Your task to perform on an android device: read, delete, or share a saved page in the chrome app Image 0: 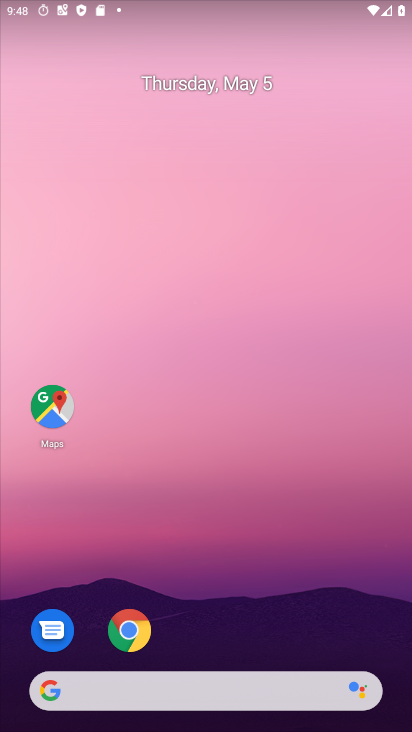
Step 0: click (136, 628)
Your task to perform on an android device: read, delete, or share a saved page in the chrome app Image 1: 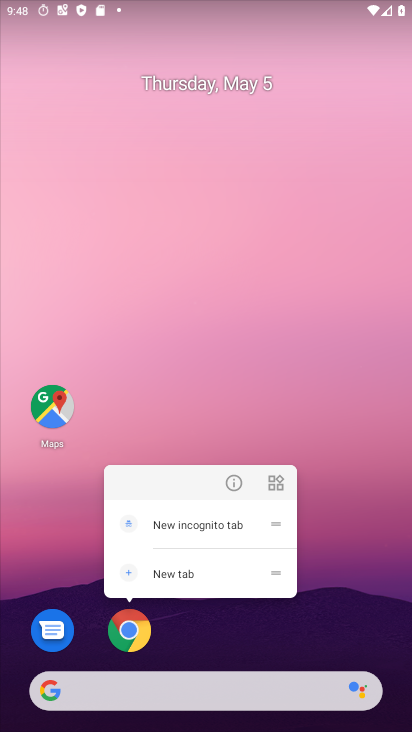
Step 1: click (303, 635)
Your task to perform on an android device: read, delete, or share a saved page in the chrome app Image 2: 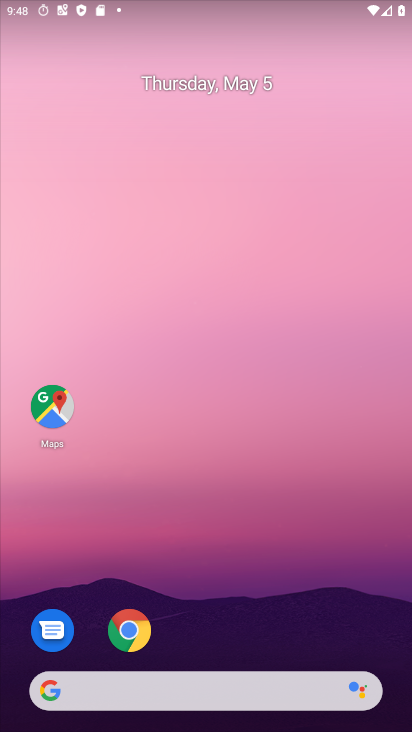
Step 2: click (137, 638)
Your task to perform on an android device: read, delete, or share a saved page in the chrome app Image 3: 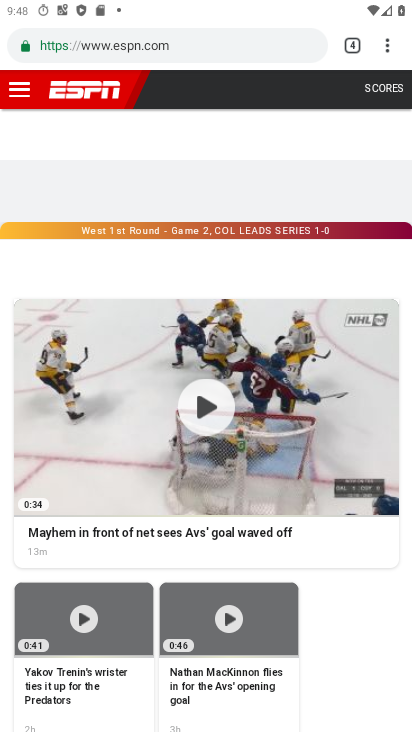
Step 3: drag from (388, 43) to (227, 166)
Your task to perform on an android device: read, delete, or share a saved page in the chrome app Image 4: 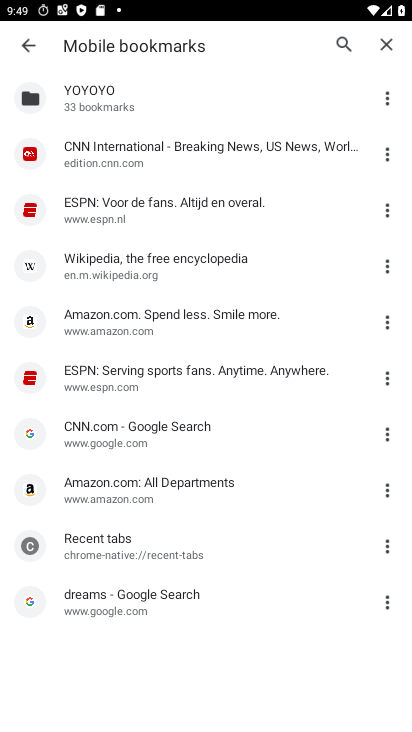
Step 4: click (387, 602)
Your task to perform on an android device: read, delete, or share a saved page in the chrome app Image 5: 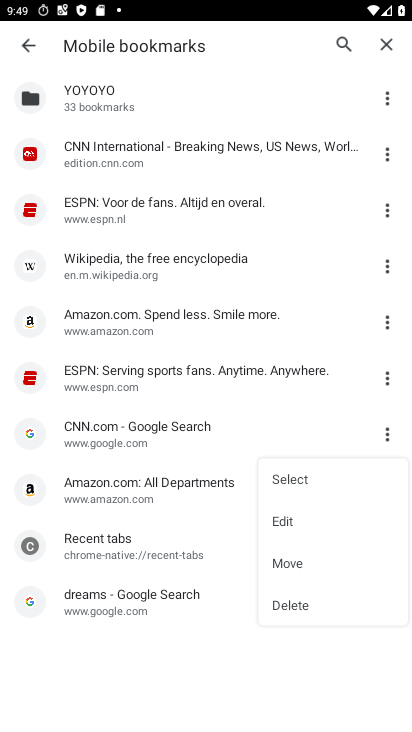
Step 5: click (296, 603)
Your task to perform on an android device: read, delete, or share a saved page in the chrome app Image 6: 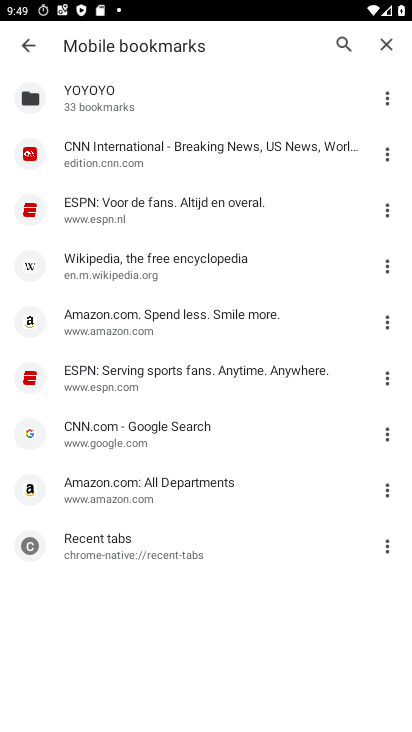
Step 6: task complete